Your task to perform on an android device: Search for Mexican restaurants on Maps Image 0: 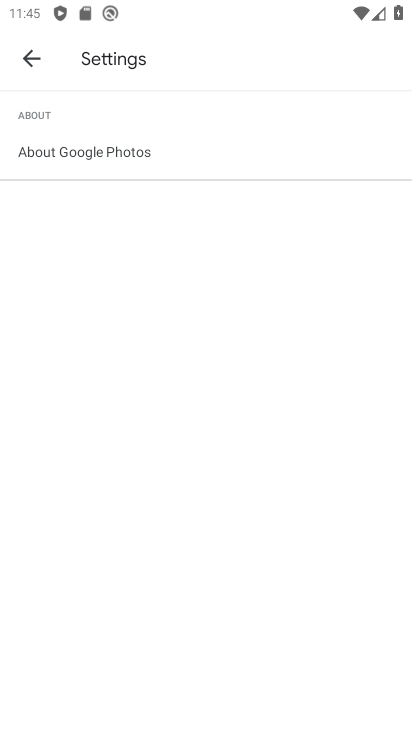
Step 0: press back button
Your task to perform on an android device: Search for Mexican restaurants on Maps Image 1: 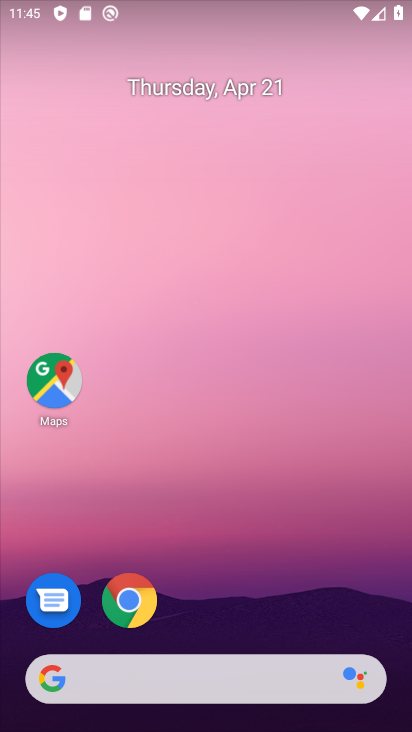
Step 1: drag from (225, 654) to (299, 133)
Your task to perform on an android device: Search for Mexican restaurants on Maps Image 2: 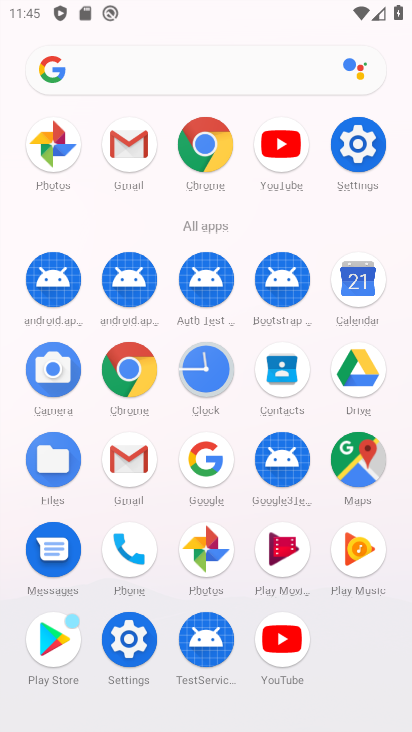
Step 2: click (394, 448)
Your task to perform on an android device: Search for Mexican restaurants on Maps Image 3: 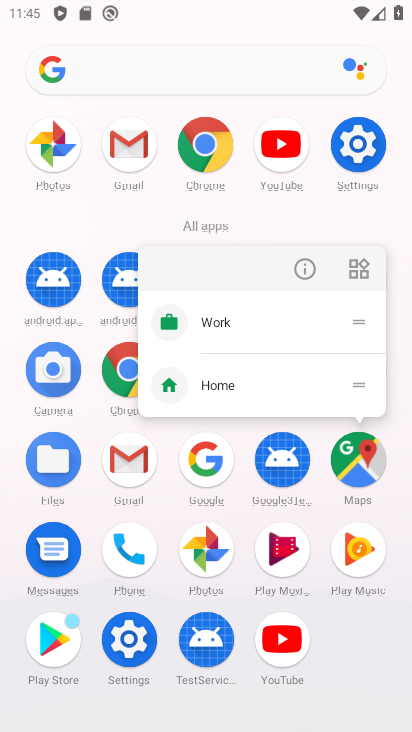
Step 3: click (381, 455)
Your task to perform on an android device: Search for Mexican restaurants on Maps Image 4: 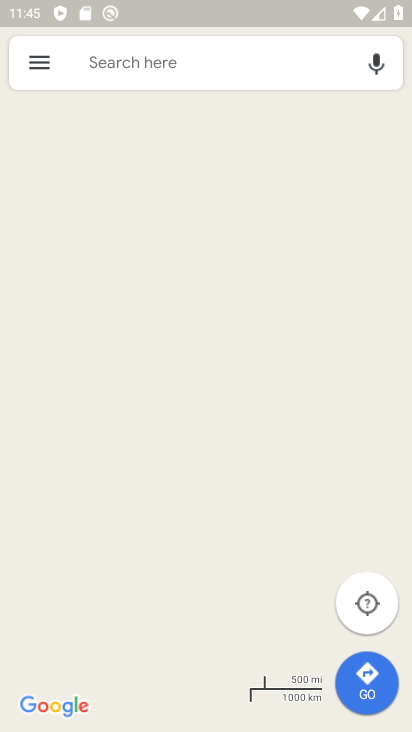
Step 4: click (110, 65)
Your task to perform on an android device: Search for Mexican restaurants on Maps Image 5: 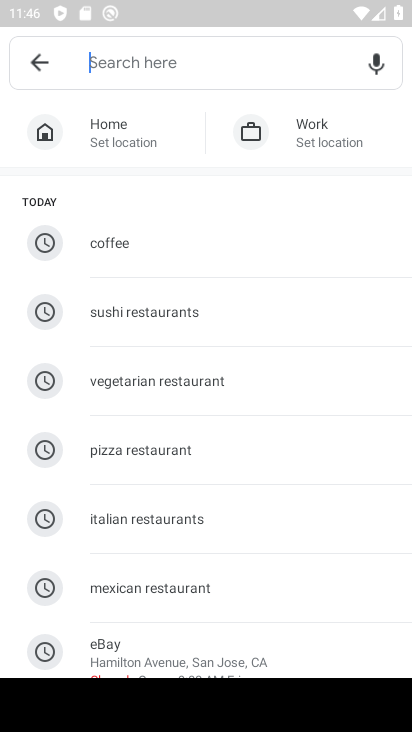
Step 5: type "Mexican restaurants "
Your task to perform on an android device: Search for Mexican restaurants on Maps Image 6: 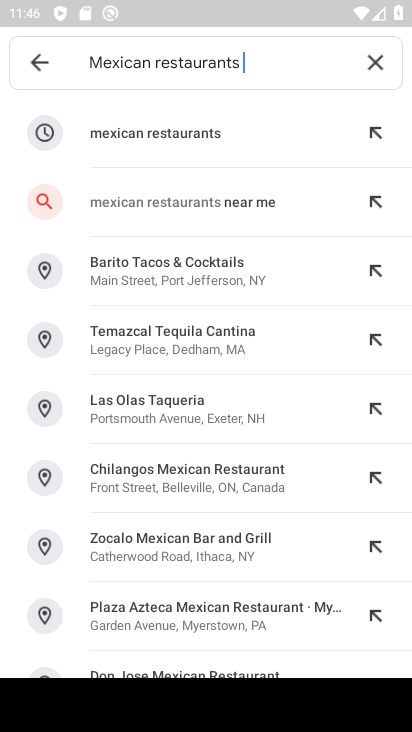
Step 6: click (220, 141)
Your task to perform on an android device: Search for Mexican restaurants on Maps Image 7: 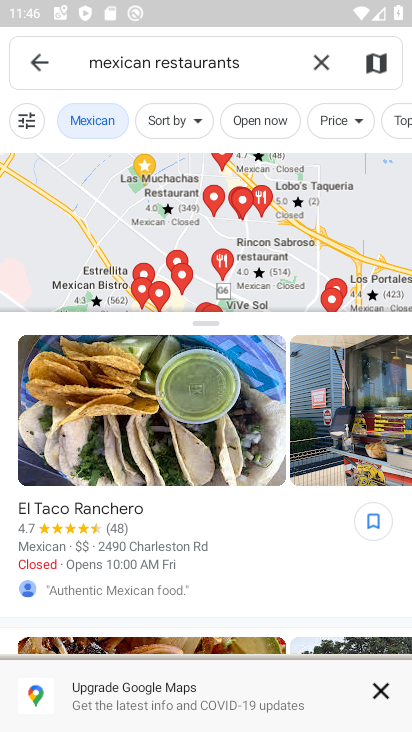
Step 7: task complete